Your task to perform on an android device: turn on the 24-hour format for clock Image 0: 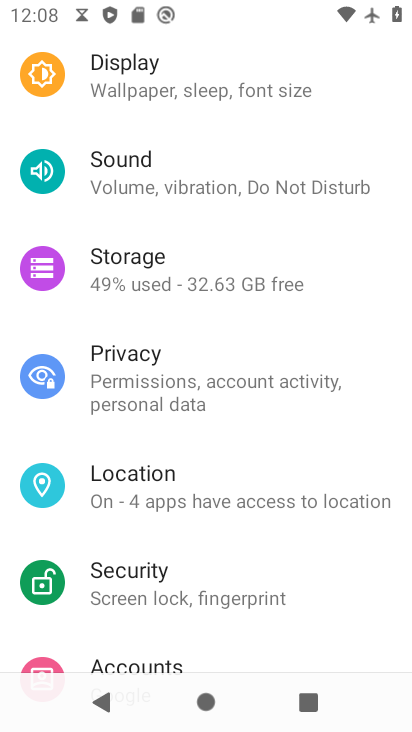
Step 0: press home button
Your task to perform on an android device: turn on the 24-hour format for clock Image 1: 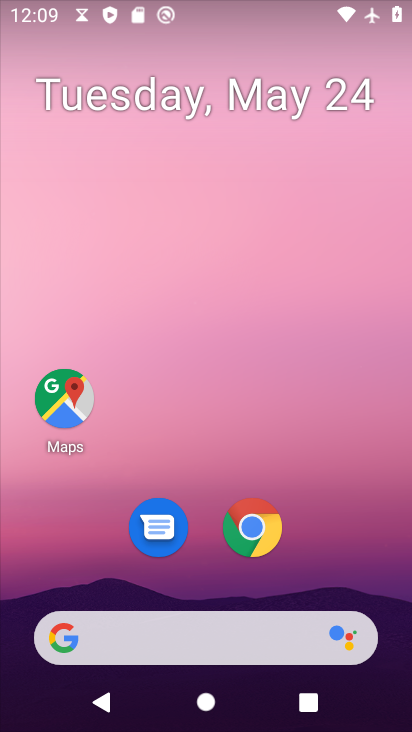
Step 1: drag from (171, 625) to (314, 233)
Your task to perform on an android device: turn on the 24-hour format for clock Image 2: 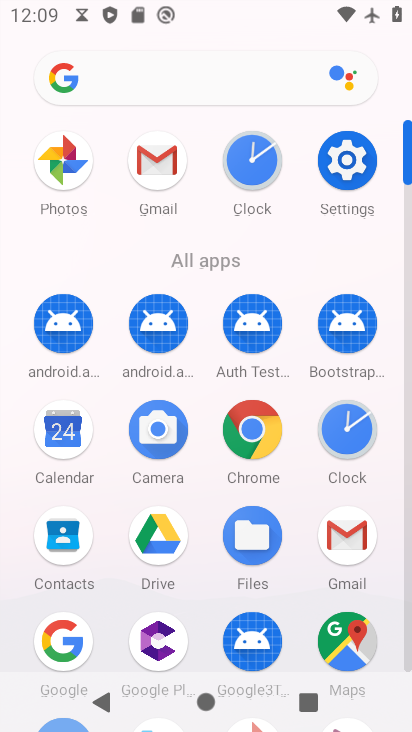
Step 2: click (253, 171)
Your task to perform on an android device: turn on the 24-hour format for clock Image 3: 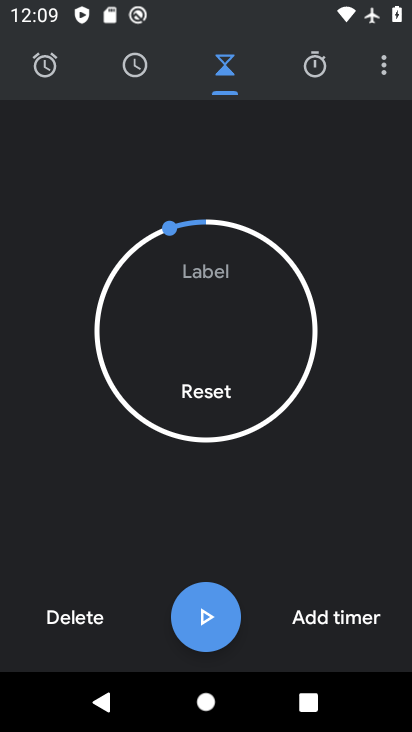
Step 3: click (378, 69)
Your task to perform on an android device: turn on the 24-hour format for clock Image 4: 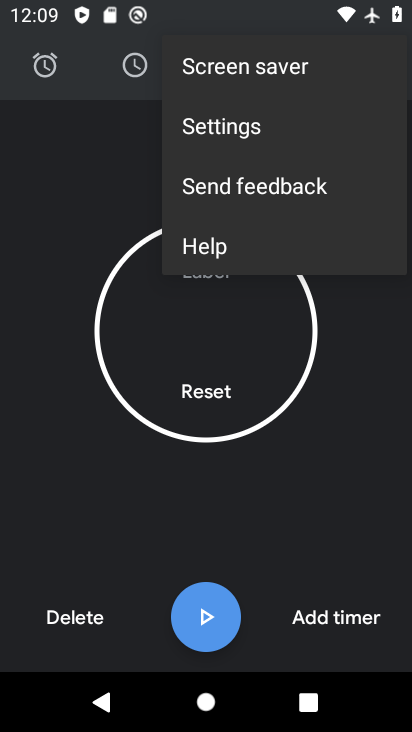
Step 4: click (238, 129)
Your task to perform on an android device: turn on the 24-hour format for clock Image 5: 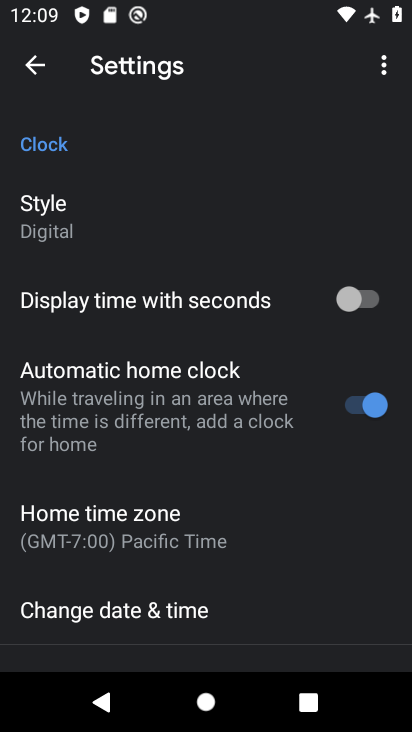
Step 5: drag from (209, 592) to (292, 221)
Your task to perform on an android device: turn on the 24-hour format for clock Image 6: 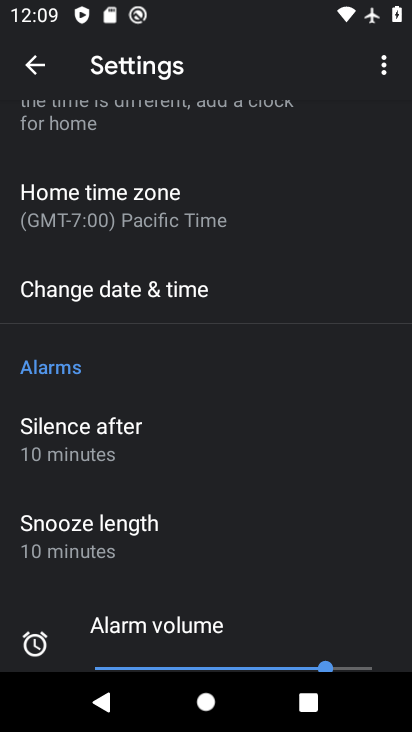
Step 6: click (153, 280)
Your task to perform on an android device: turn on the 24-hour format for clock Image 7: 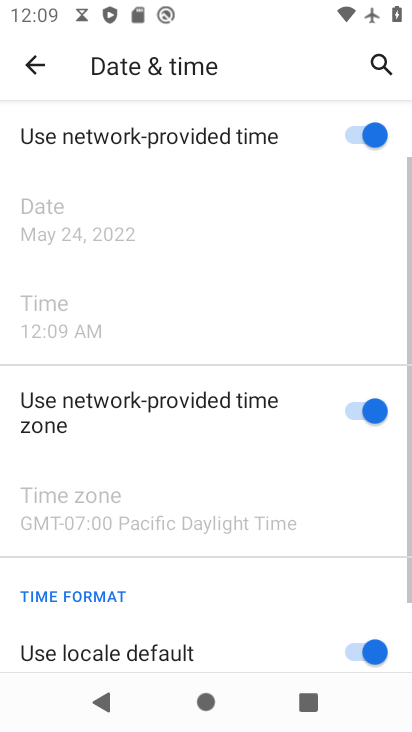
Step 7: drag from (187, 617) to (343, 169)
Your task to perform on an android device: turn on the 24-hour format for clock Image 8: 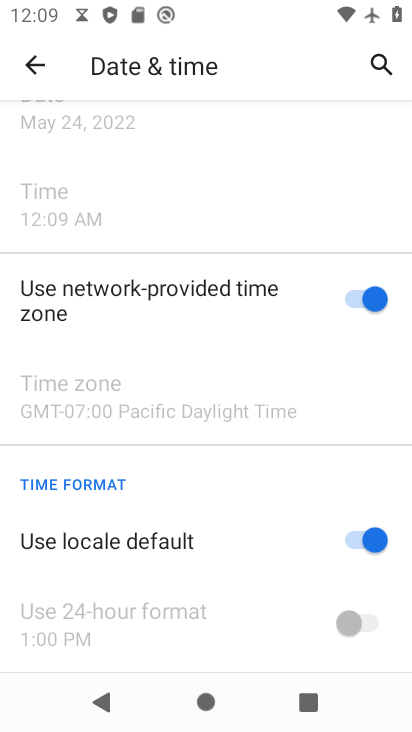
Step 8: click (353, 540)
Your task to perform on an android device: turn on the 24-hour format for clock Image 9: 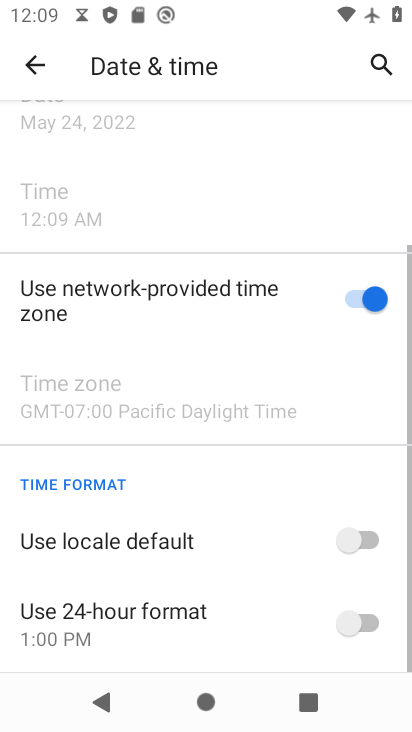
Step 9: click (372, 627)
Your task to perform on an android device: turn on the 24-hour format for clock Image 10: 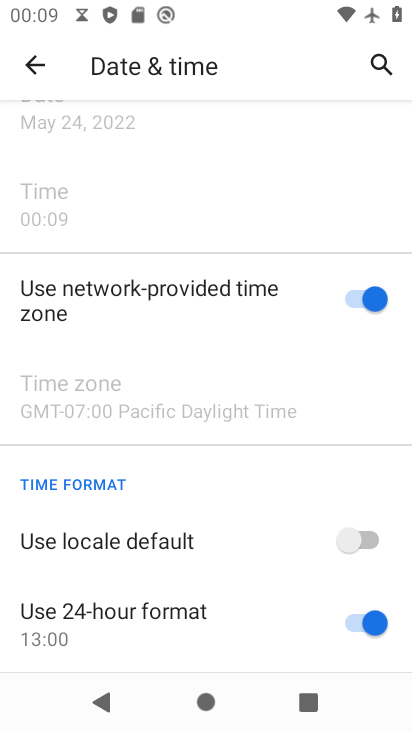
Step 10: task complete